Your task to perform on an android device: Open the phone app and click the voicemail tab. Image 0: 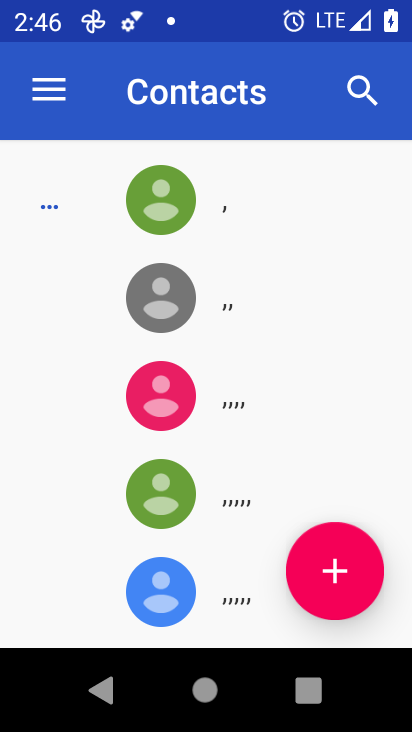
Step 0: press home button
Your task to perform on an android device: Open the phone app and click the voicemail tab. Image 1: 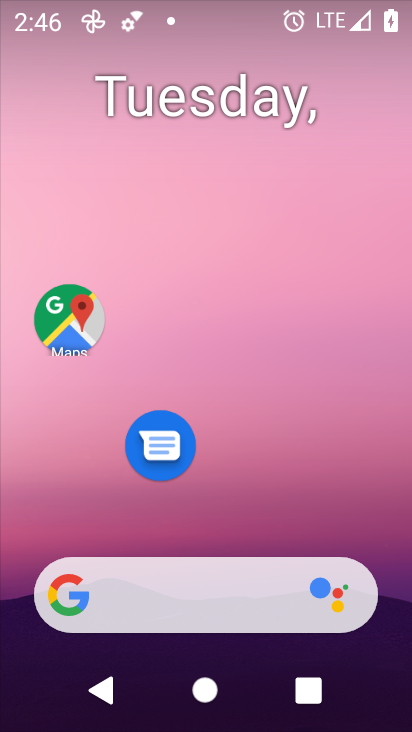
Step 1: drag from (268, 467) to (211, 4)
Your task to perform on an android device: Open the phone app and click the voicemail tab. Image 2: 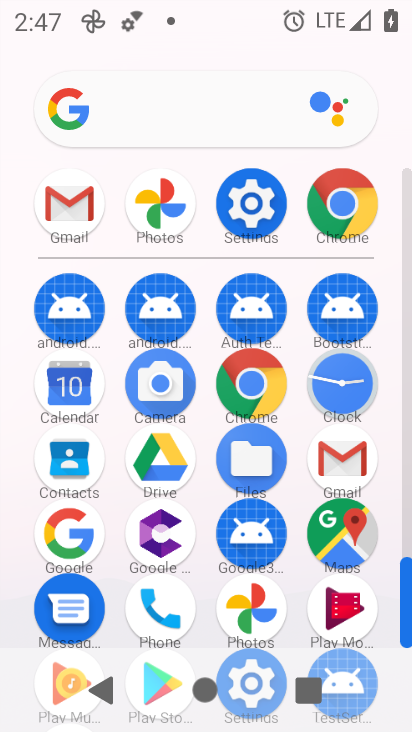
Step 2: click (157, 606)
Your task to perform on an android device: Open the phone app and click the voicemail tab. Image 3: 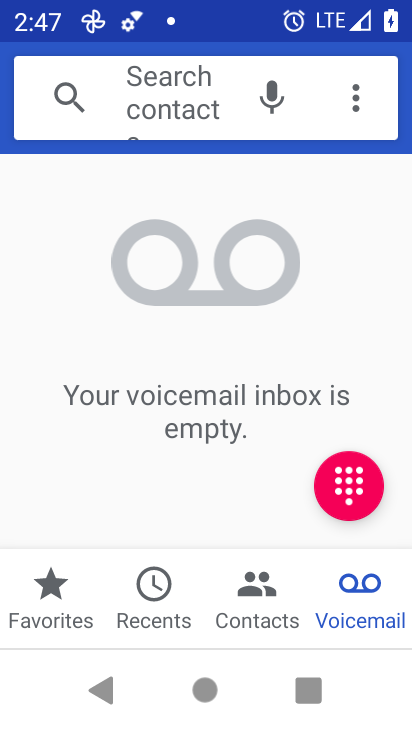
Step 3: click (338, 591)
Your task to perform on an android device: Open the phone app and click the voicemail tab. Image 4: 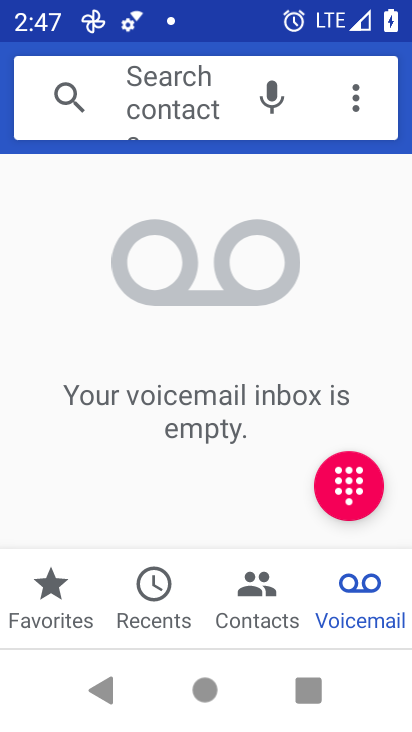
Step 4: task complete